Your task to perform on an android device: check data usage Image 0: 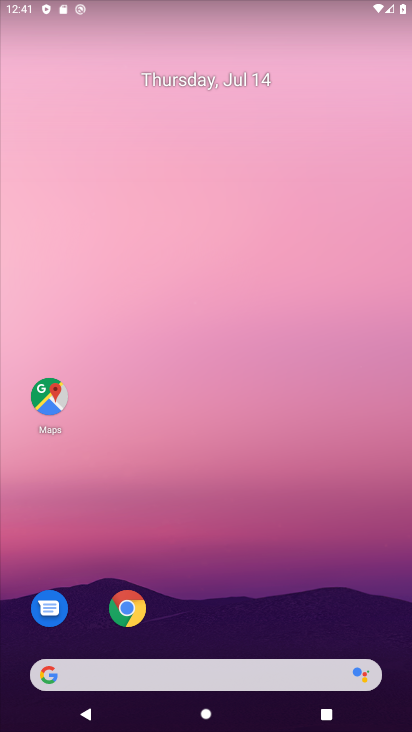
Step 0: drag from (191, 483) to (192, 36)
Your task to perform on an android device: check data usage Image 1: 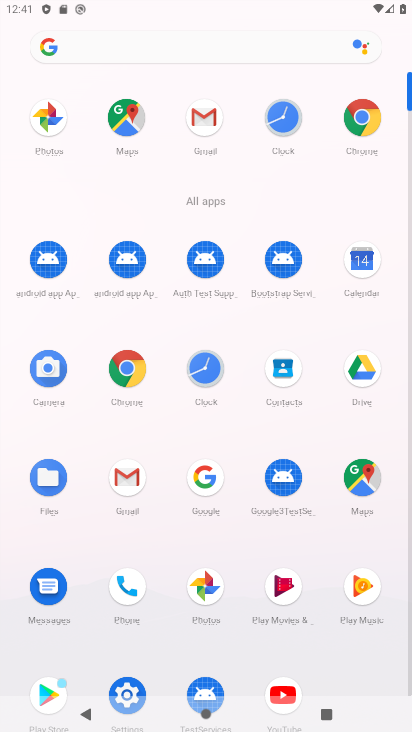
Step 1: drag from (129, 641) to (113, 326)
Your task to perform on an android device: check data usage Image 2: 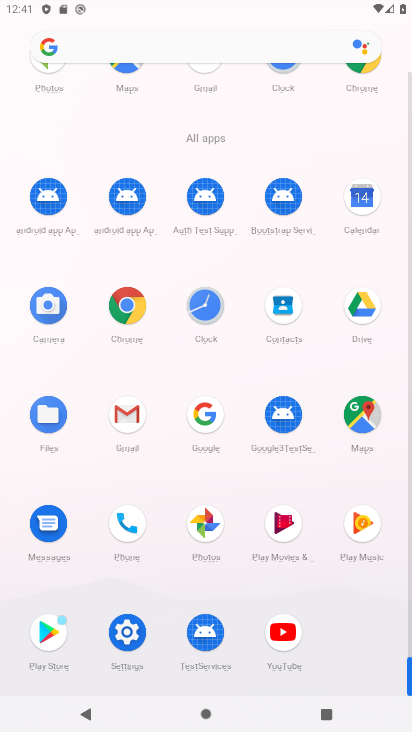
Step 2: click (124, 639)
Your task to perform on an android device: check data usage Image 3: 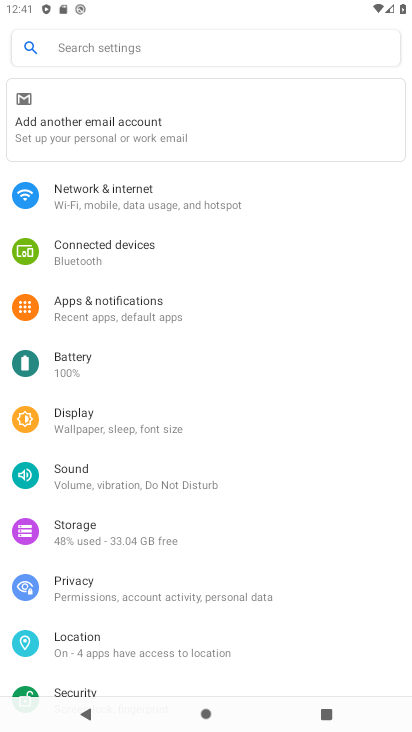
Step 3: click (66, 206)
Your task to perform on an android device: check data usage Image 4: 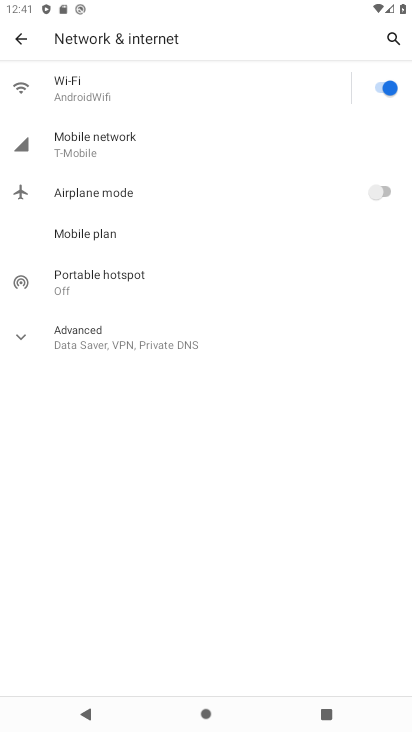
Step 4: click (79, 142)
Your task to perform on an android device: check data usage Image 5: 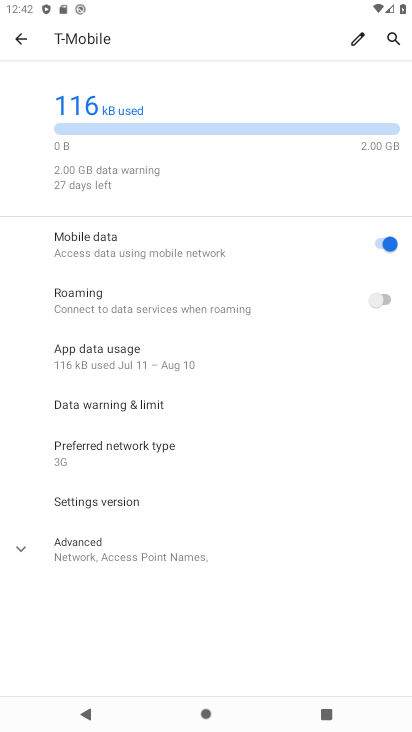
Step 5: task complete